Your task to perform on an android device: Open accessibility settings Image 0: 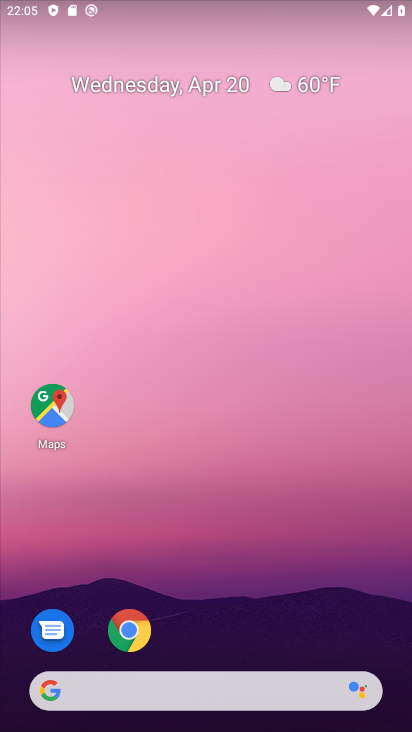
Step 0: drag from (236, 630) to (172, 141)
Your task to perform on an android device: Open accessibility settings Image 1: 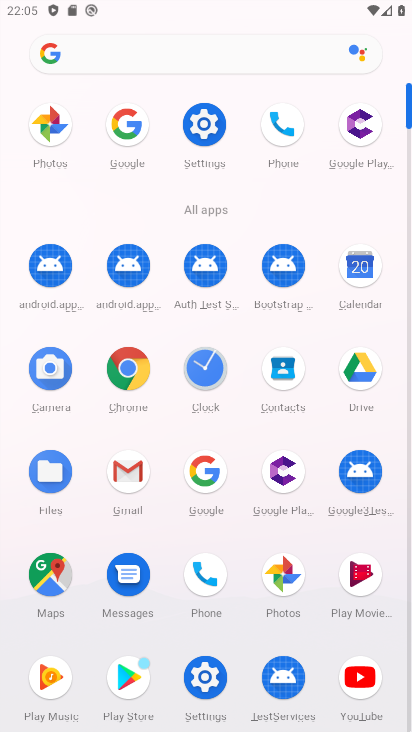
Step 1: drag from (265, 652) to (275, 465)
Your task to perform on an android device: Open accessibility settings Image 2: 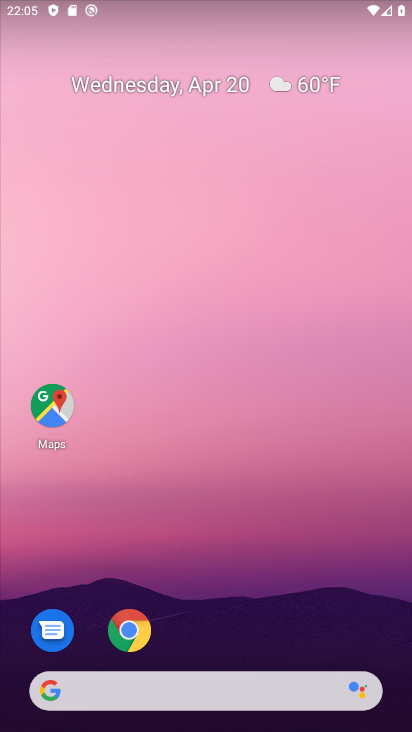
Step 2: drag from (251, 636) to (297, 273)
Your task to perform on an android device: Open accessibility settings Image 3: 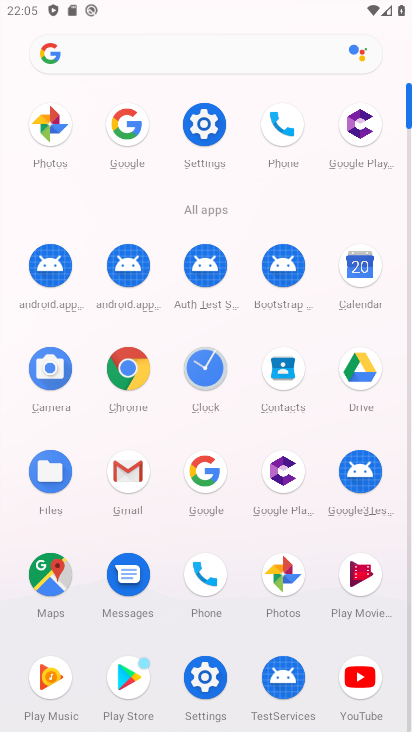
Step 3: click (209, 666)
Your task to perform on an android device: Open accessibility settings Image 4: 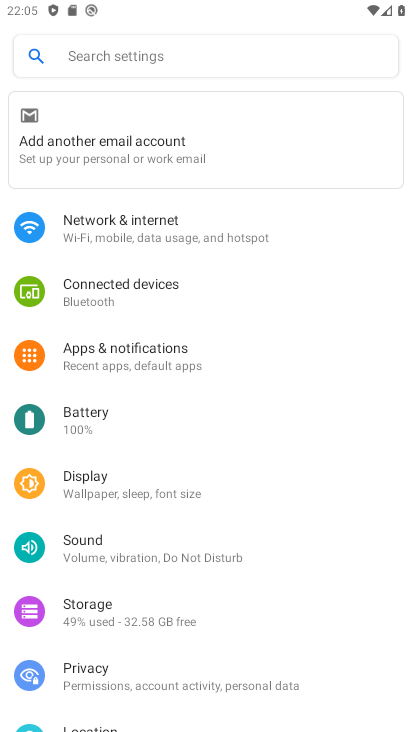
Step 4: drag from (207, 657) to (209, 282)
Your task to perform on an android device: Open accessibility settings Image 5: 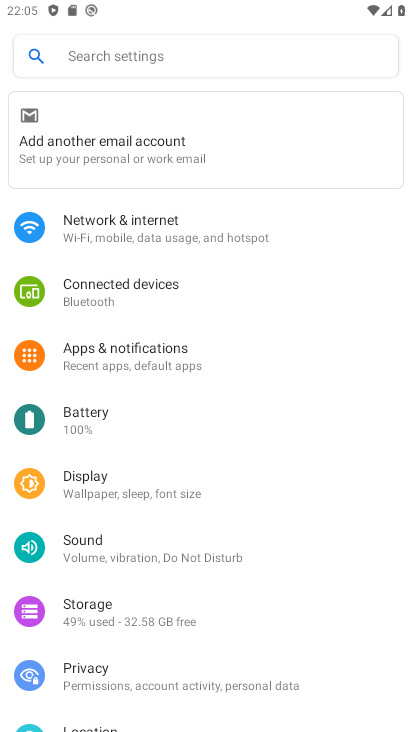
Step 5: drag from (270, 533) to (288, 233)
Your task to perform on an android device: Open accessibility settings Image 6: 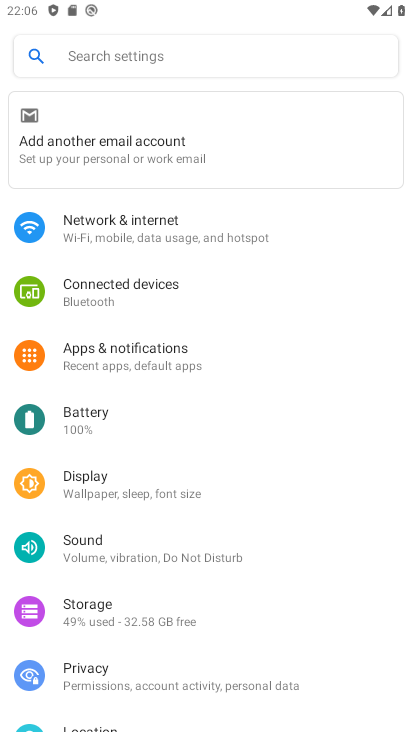
Step 6: drag from (274, 586) to (304, 145)
Your task to perform on an android device: Open accessibility settings Image 7: 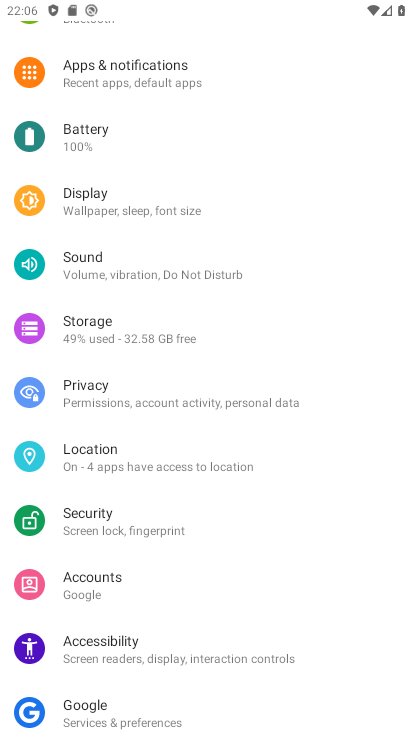
Step 7: click (153, 650)
Your task to perform on an android device: Open accessibility settings Image 8: 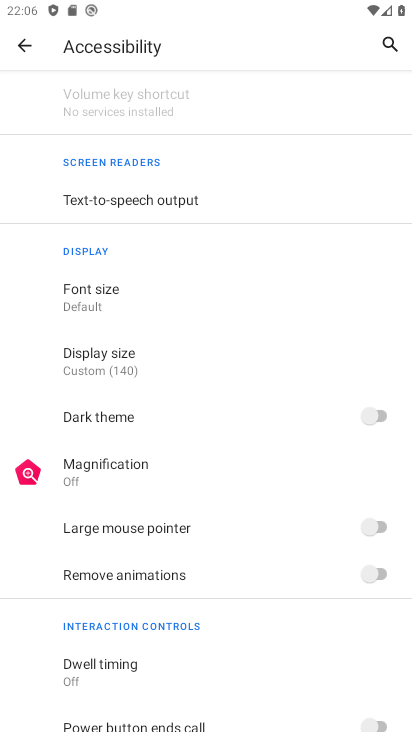
Step 8: task complete